Your task to perform on an android device: What's on my calendar today? Image 0: 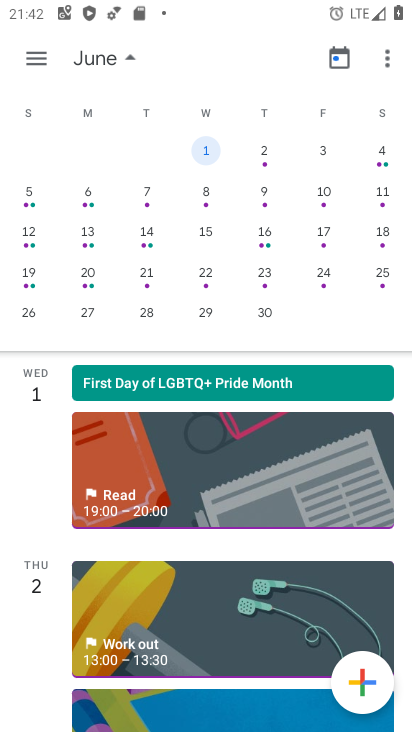
Step 0: drag from (92, 229) to (376, 211)
Your task to perform on an android device: What's on my calendar today? Image 1: 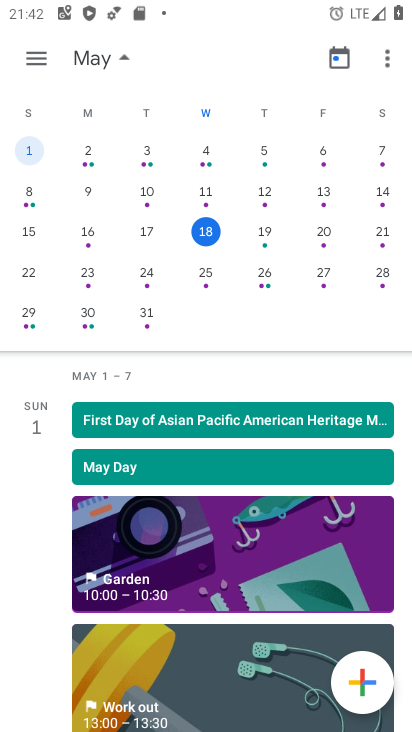
Step 1: click (196, 231)
Your task to perform on an android device: What's on my calendar today? Image 2: 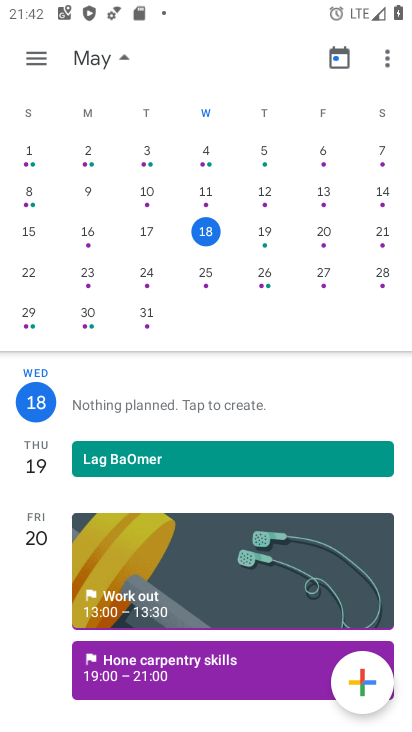
Step 2: task complete